Your task to perform on an android device: Open Maps and search for coffee Image 0: 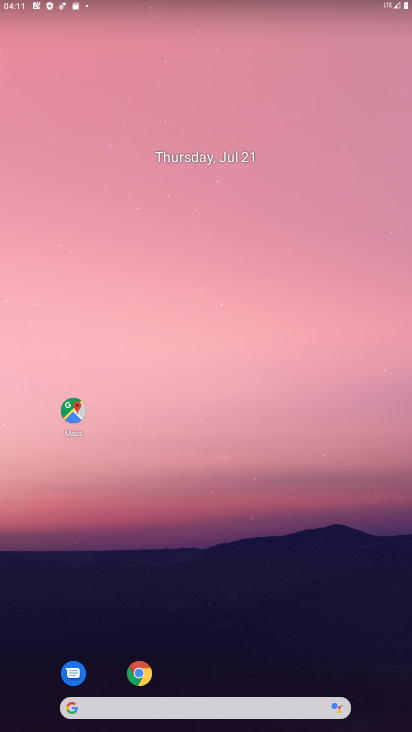
Step 0: drag from (286, 623) to (274, 139)
Your task to perform on an android device: Open Maps and search for coffee Image 1: 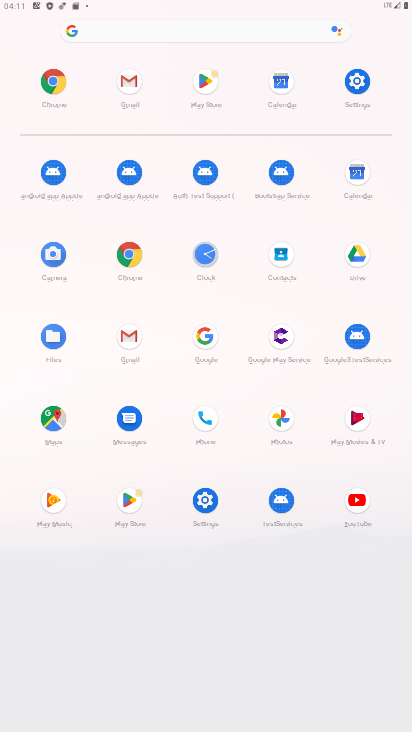
Step 1: click (39, 435)
Your task to perform on an android device: Open Maps and search for coffee Image 2: 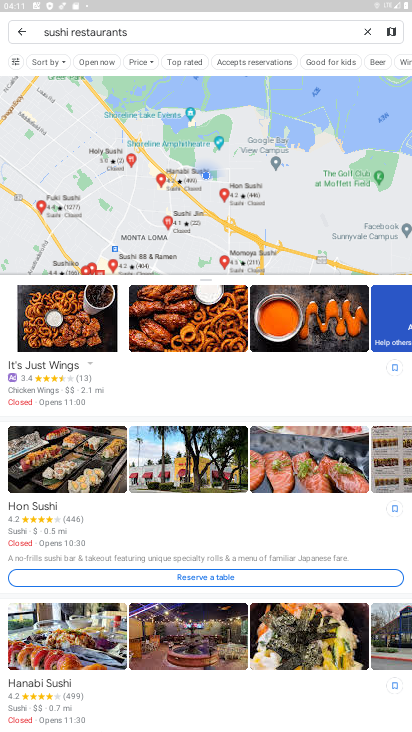
Step 2: click (373, 25)
Your task to perform on an android device: Open Maps and search for coffee Image 3: 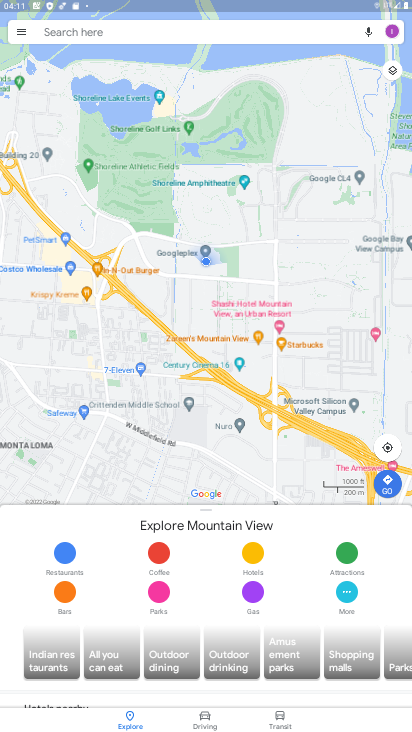
Step 3: click (278, 27)
Your task to perform on an android device: Open Maps and search for coffee Image 4: 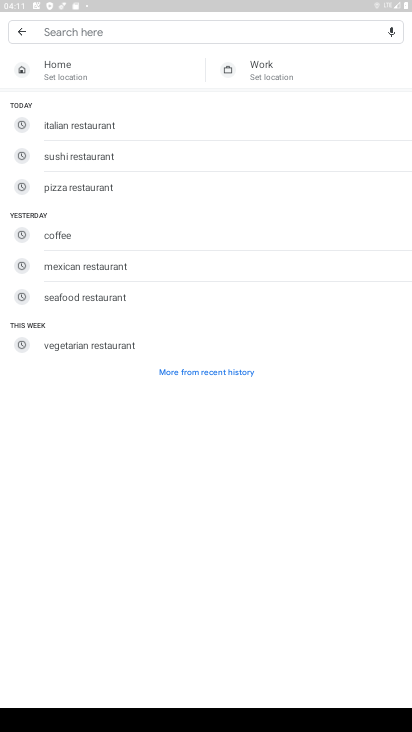
Step 4: type "coffee"
Your task to perform on an android device: Open Maps and search for coffee Image 5: 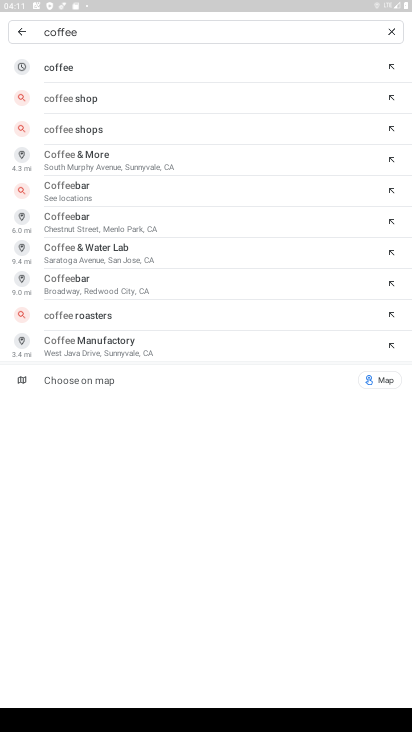
Step 5: click (61, 56)
Your task to perform on an android device: Open Maps and search for coffee Image 6: 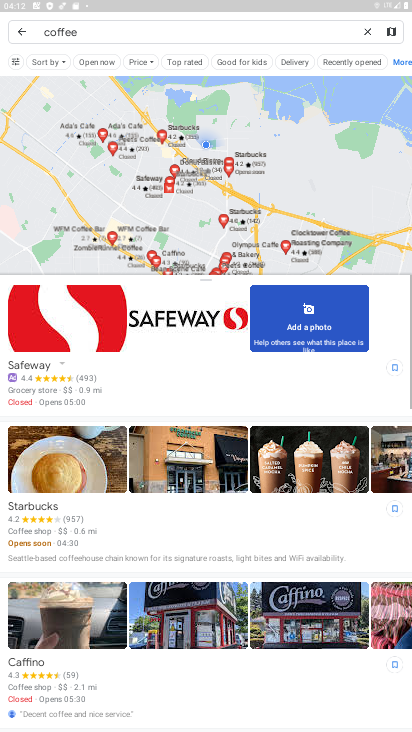
Step 6: task complete